Your task to perform on an android device: Open the calendar app, open the side menu, and click the "Day" option Image 0: 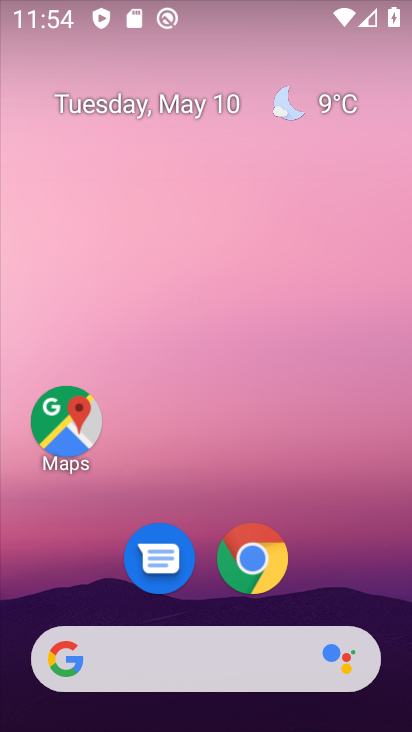
Step 0: drag from (379, 588) to (360, 175)
Your task to perform on an android device: Open the calendar app, open the side menu, and click the "Day" option Image 1: 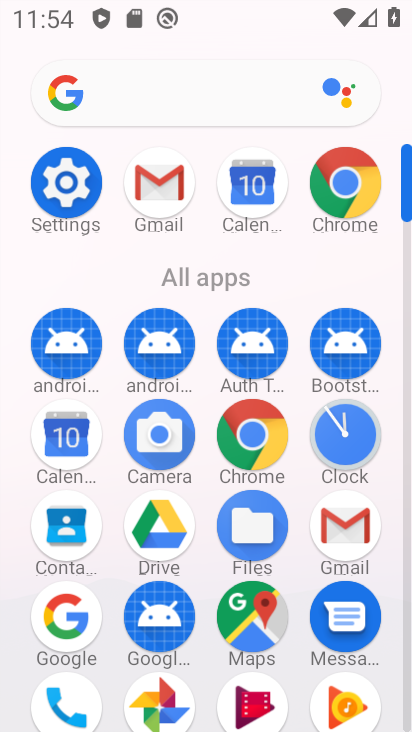
Step 1: click (38, 437)
Your task to perform on an android device: Open the calendar app, open the side menu, and click the "Day" option Image 2: 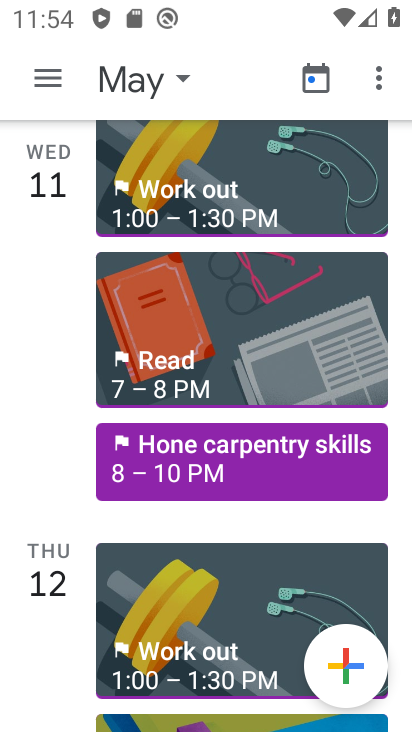
Step 2: click (65, 70)
Your task to perform on an android device: Open the calendar app, open the side menu, and click the "Day" option Image 3: 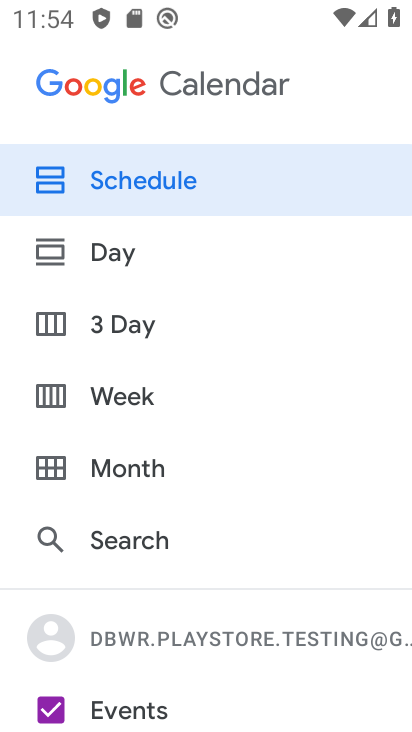
Step 3: click (134, 284)
Your task to perform on an android device: Open the calendar app, open the side menu, and click the "Day" option Image 4: 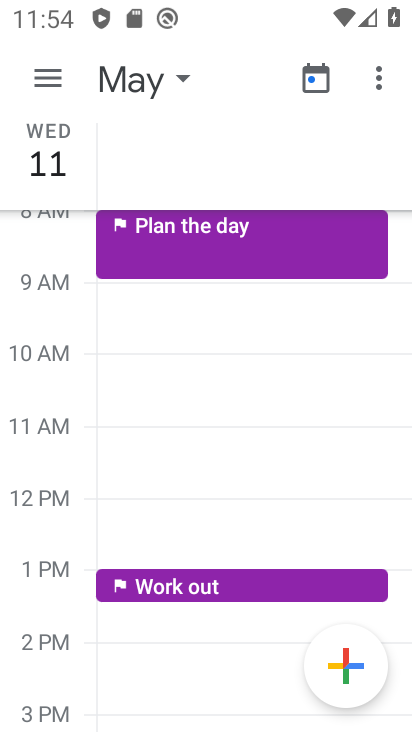
Step 4: task complete